Your task to perform on an android device: create a new album in the google photos Image 0: 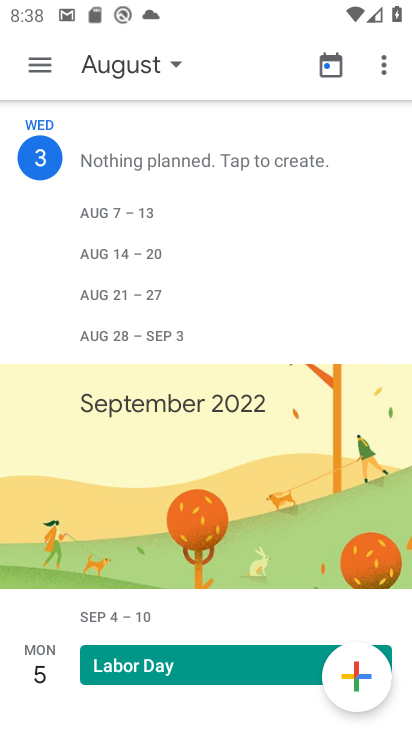
Step 0: press home button
Your task to perform on an android device: create a new album in the google photos Image 1: 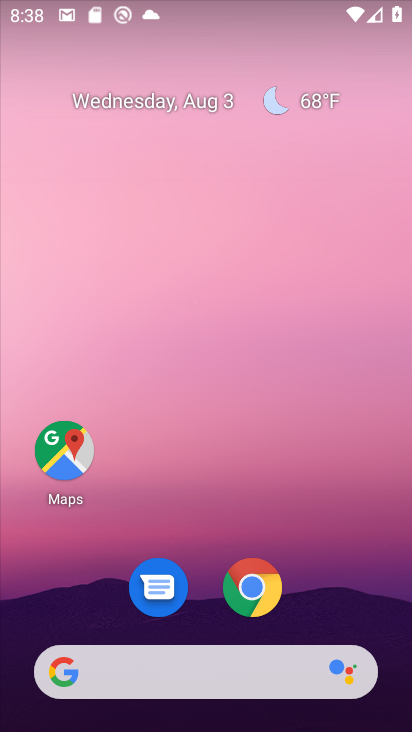
Step 1: drag from (351, 565) to (351, 64)
Your task to perform on an android device: create a new album in the google photos Image 2: 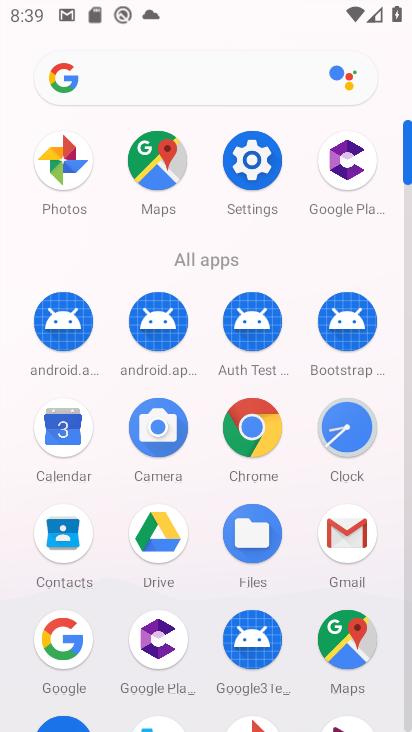
Step 2: click (62, 149)
Your task to perform on an android device: create a new album in the google photos Image 3: 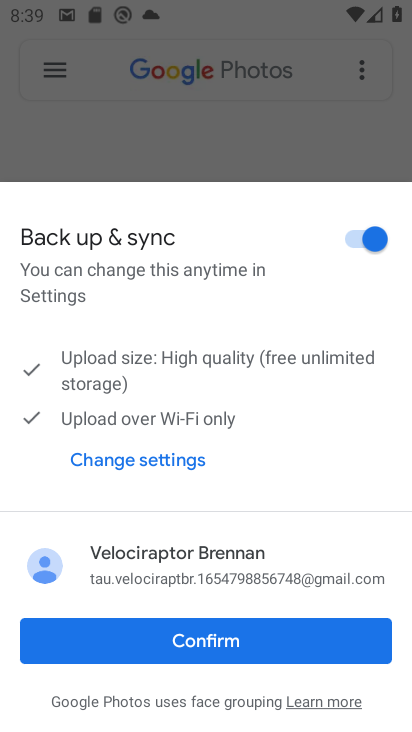
Step 3: press home button
Your task to perform on an android device: create a new album in the google photos Image 4: 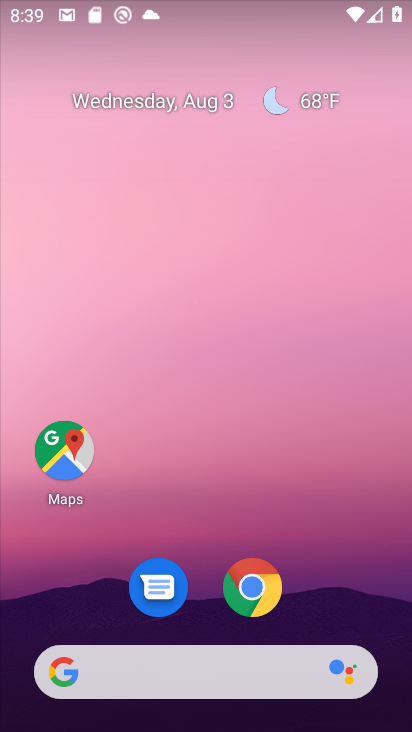
Step 4: drag from (316, 581) to (354, 129)
Your task to perform on an android device: create a new album in the google photos Image 5: 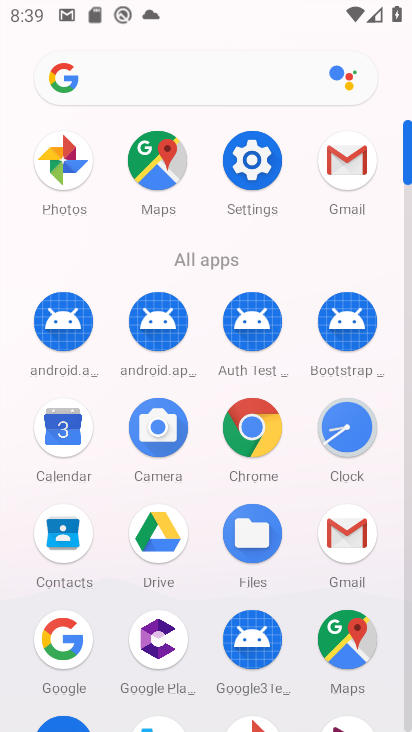
Step 5: click (58, 143)
Your task to perform on an android device: create a new album in the google photos Image 6: 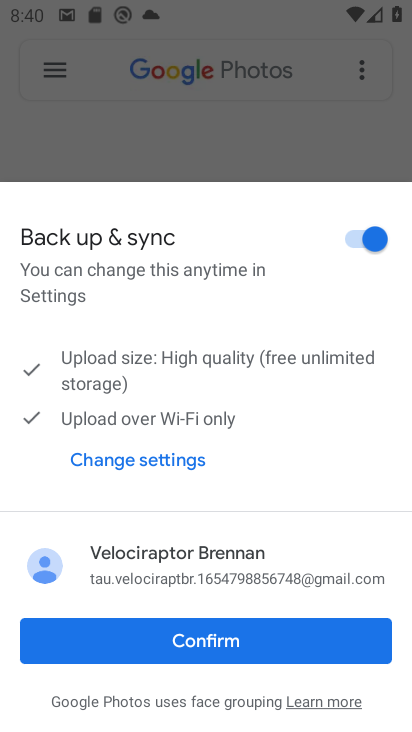
Step 6: click (148, 636)
Your task to perform on an android device: create a new album in the google photos Image 7: 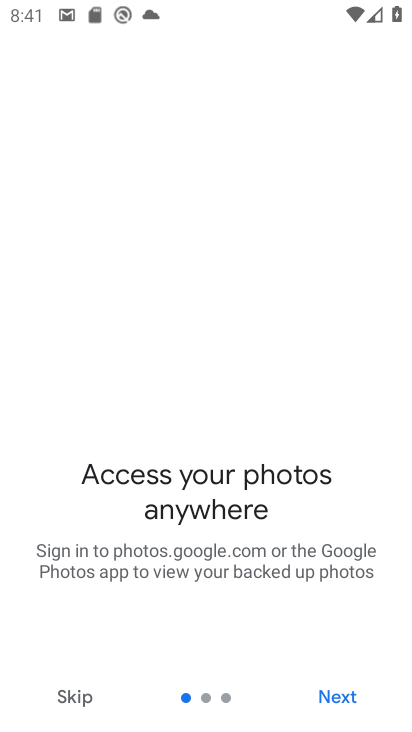
Step 7: click (339, 691)
Your task to perform on an android device: create a new album in the google photos Image 8: 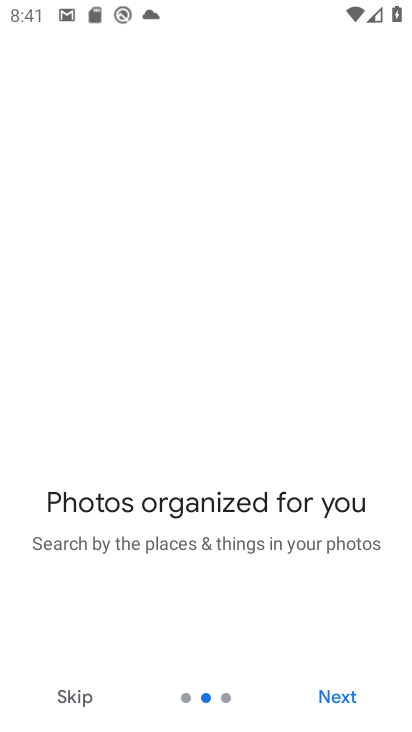
Step 8: click (339, 691)
Your task to perform on an android device: create a new album in the google photos Image 9: 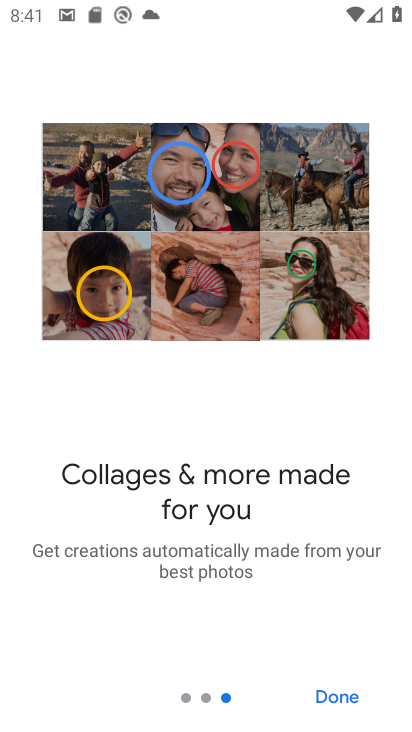
Step 9: click (339, 691)
Your task to perform on an android device: create a new album in the google photos Image 10: 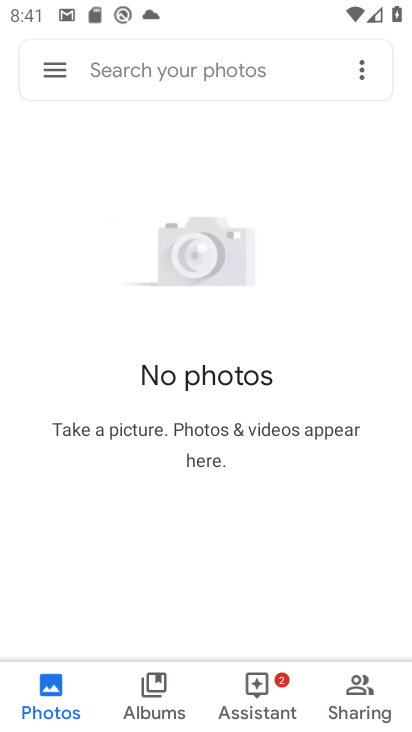
Step 10: task complete